Your task to perform on an android device: install app "The Home Depot" Image 0: 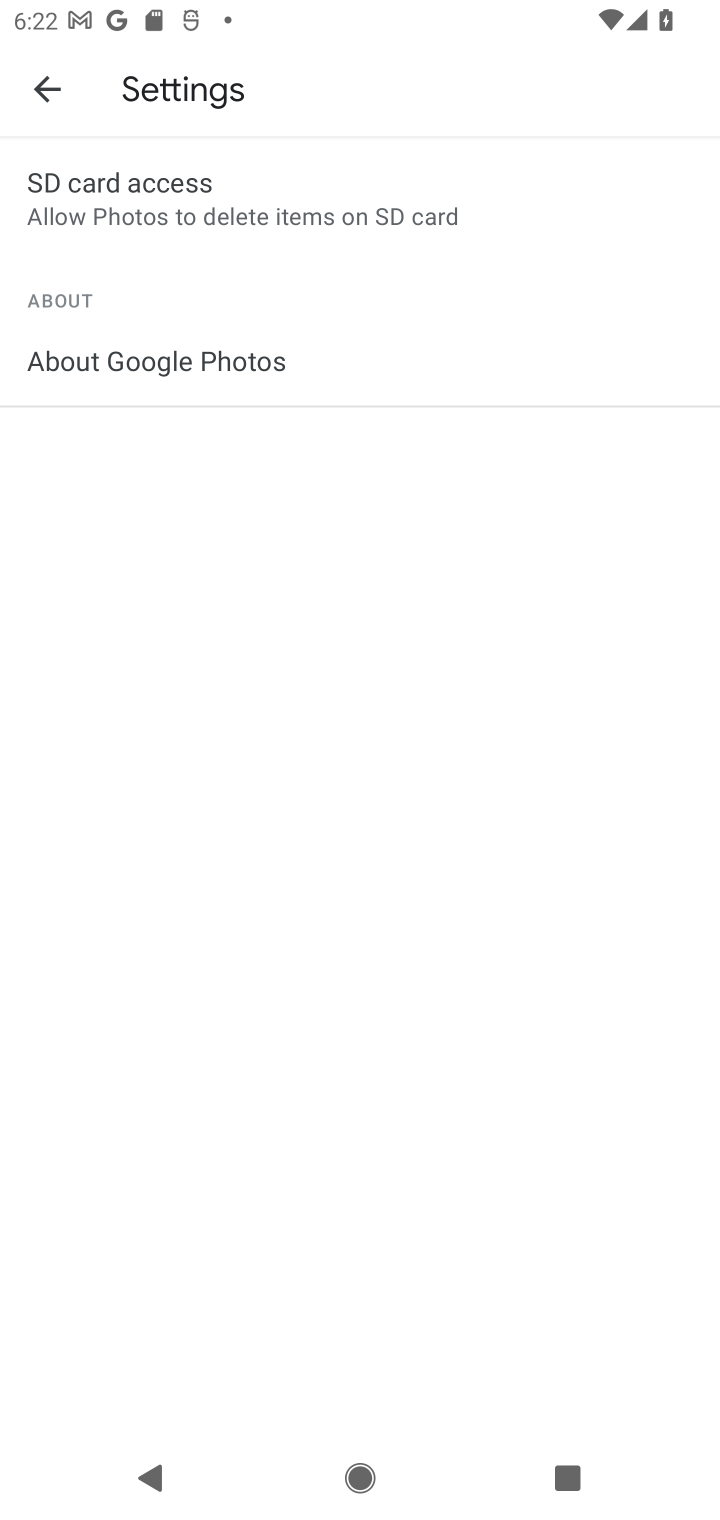
Step 0: press home button
Your task to perform on an android device: install app "The Home Depot" Image 1: 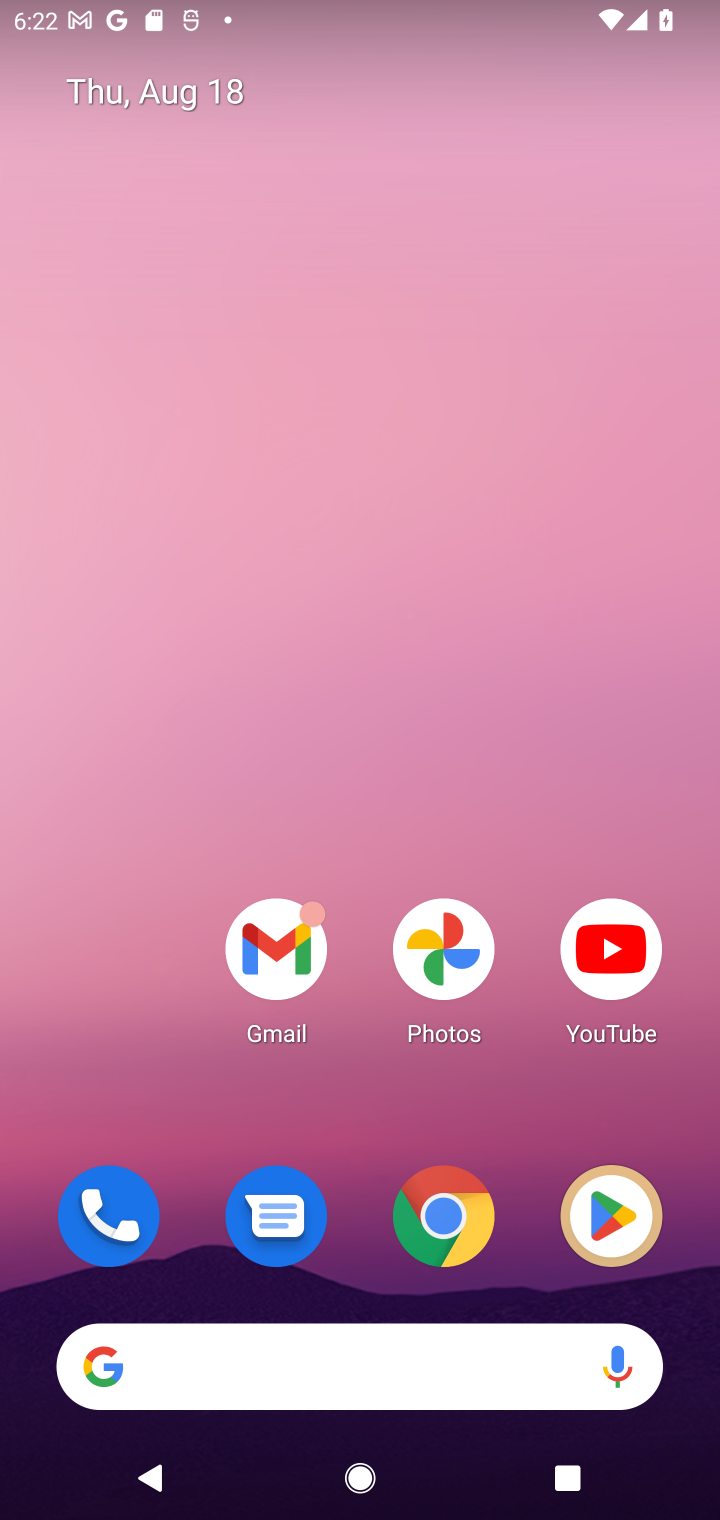
Step 1: click (605, 1215)
Your task to perform on an android device: install app "The Home Depot" Image 2: 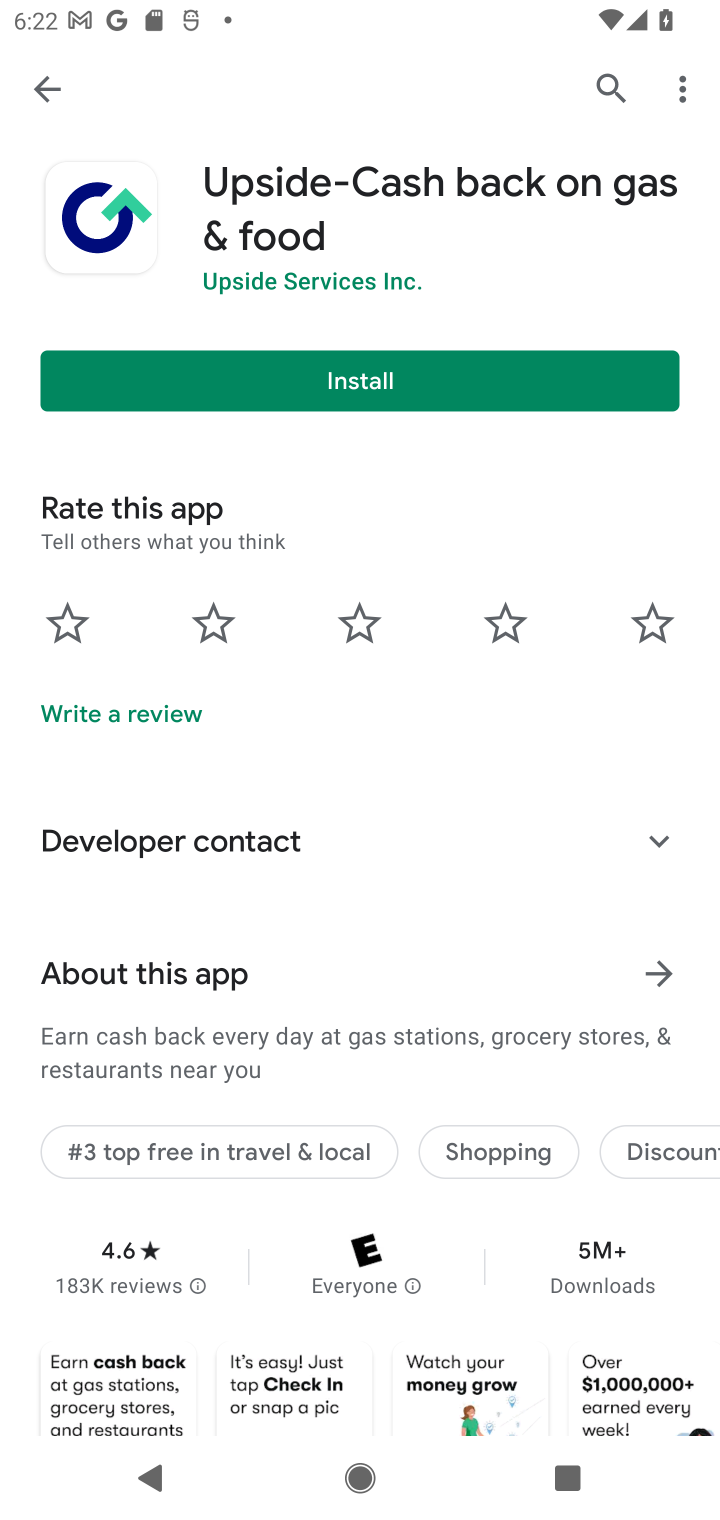
Step 2: click (594, 84)
Your task to perform on an android device: install app "The Home Depot" Image 3: 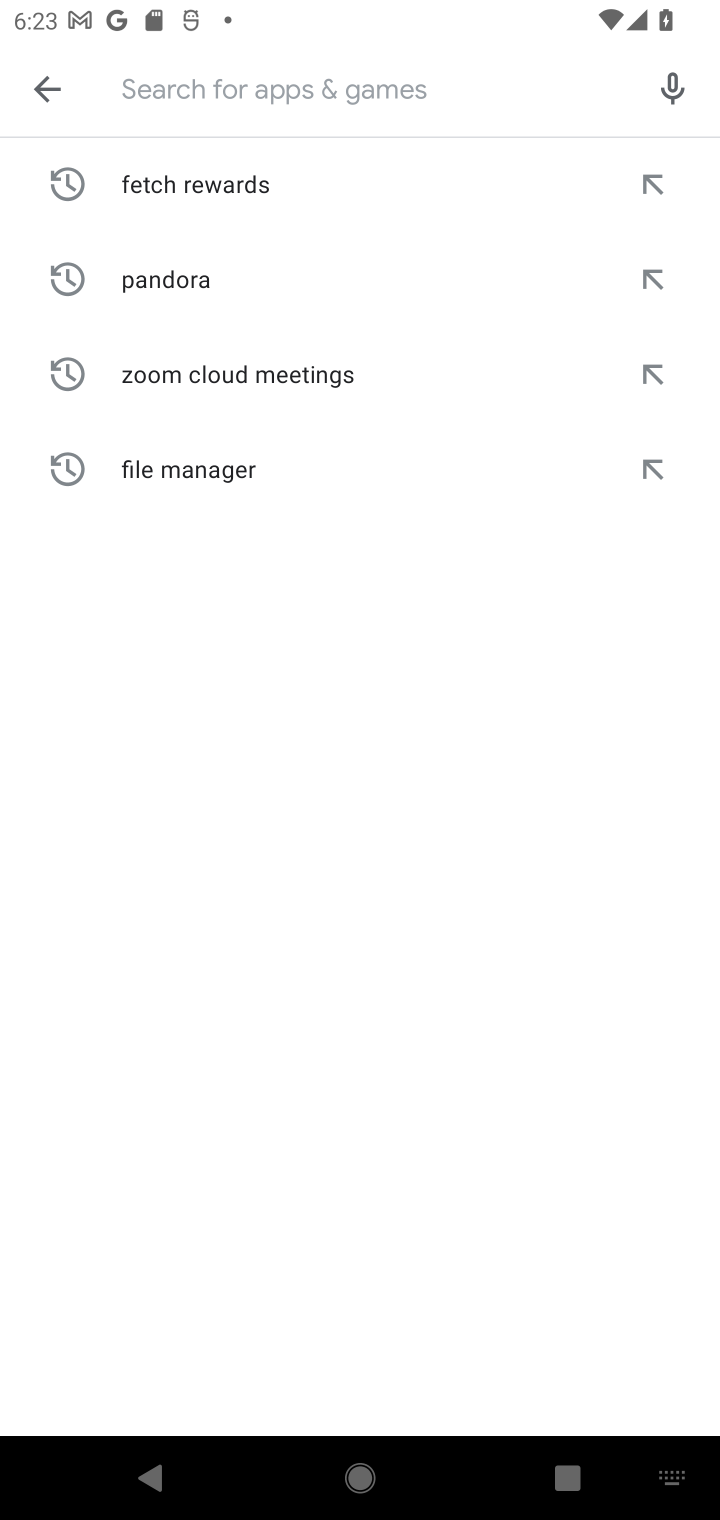
Step 3: type "The Home Depot"
Your task to perform on an android device: install app "The Home Depot" Image 4: 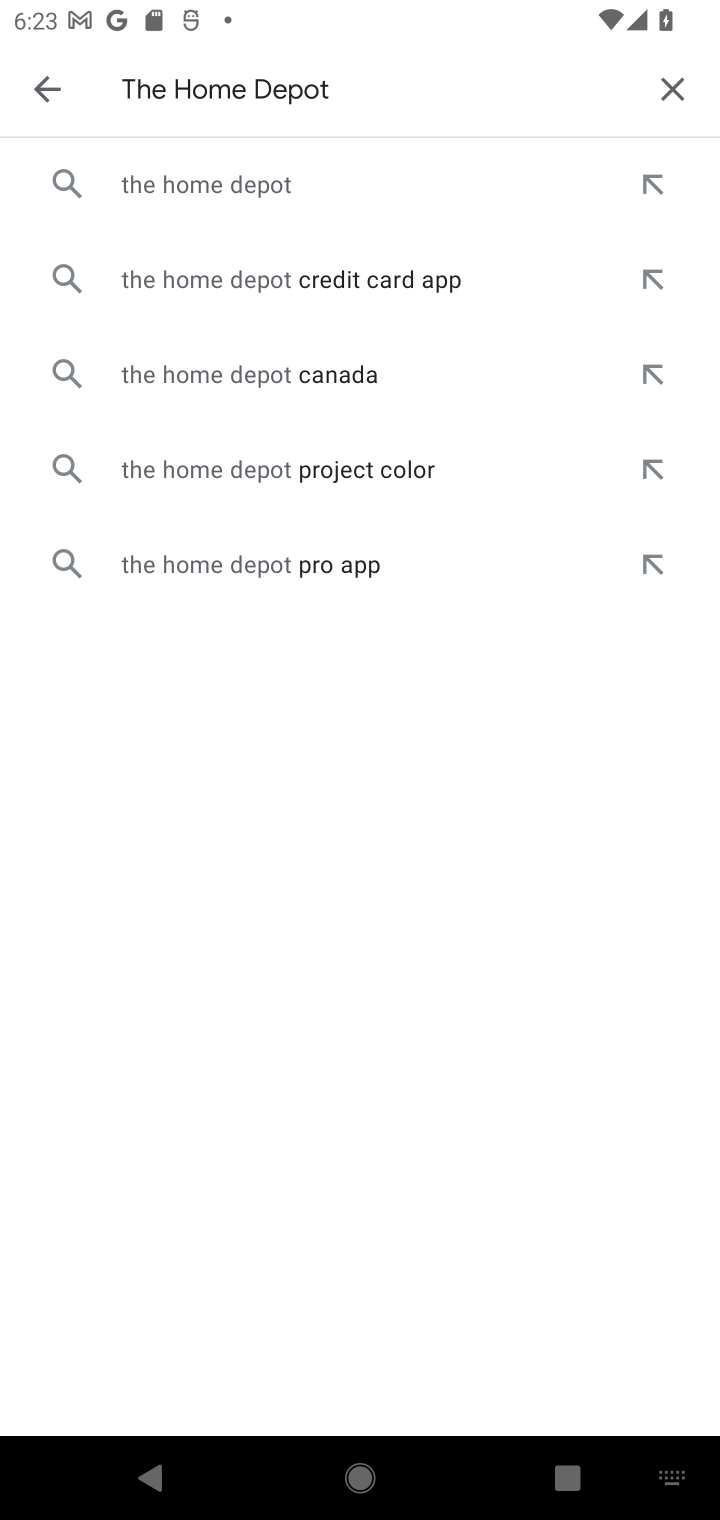
Step 4: click (216, 192)
Your task to perform on an android device: install app "The Home Depot" Image 5: 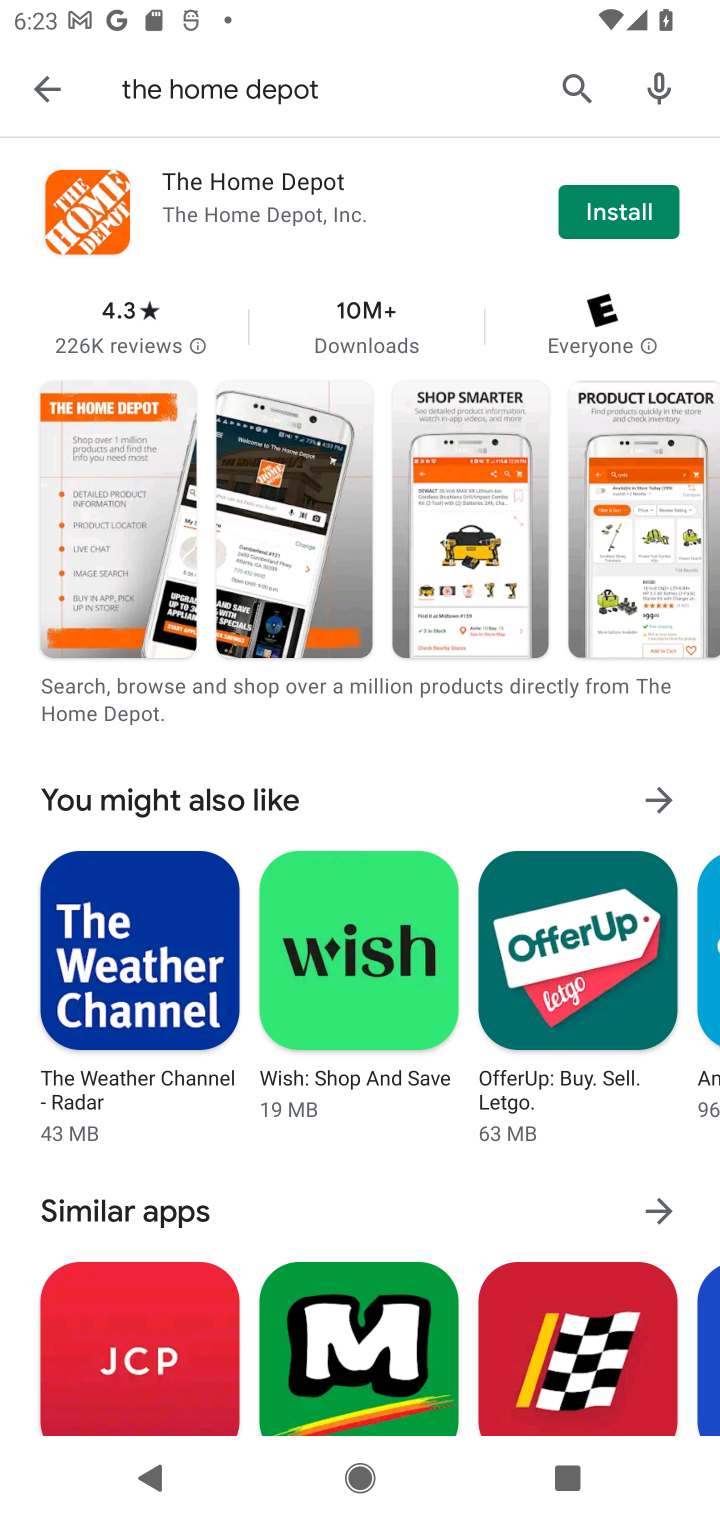
Step 5: click (619, 215)
Your task to perform on an android device: install app "The Home Depot" Image 6: 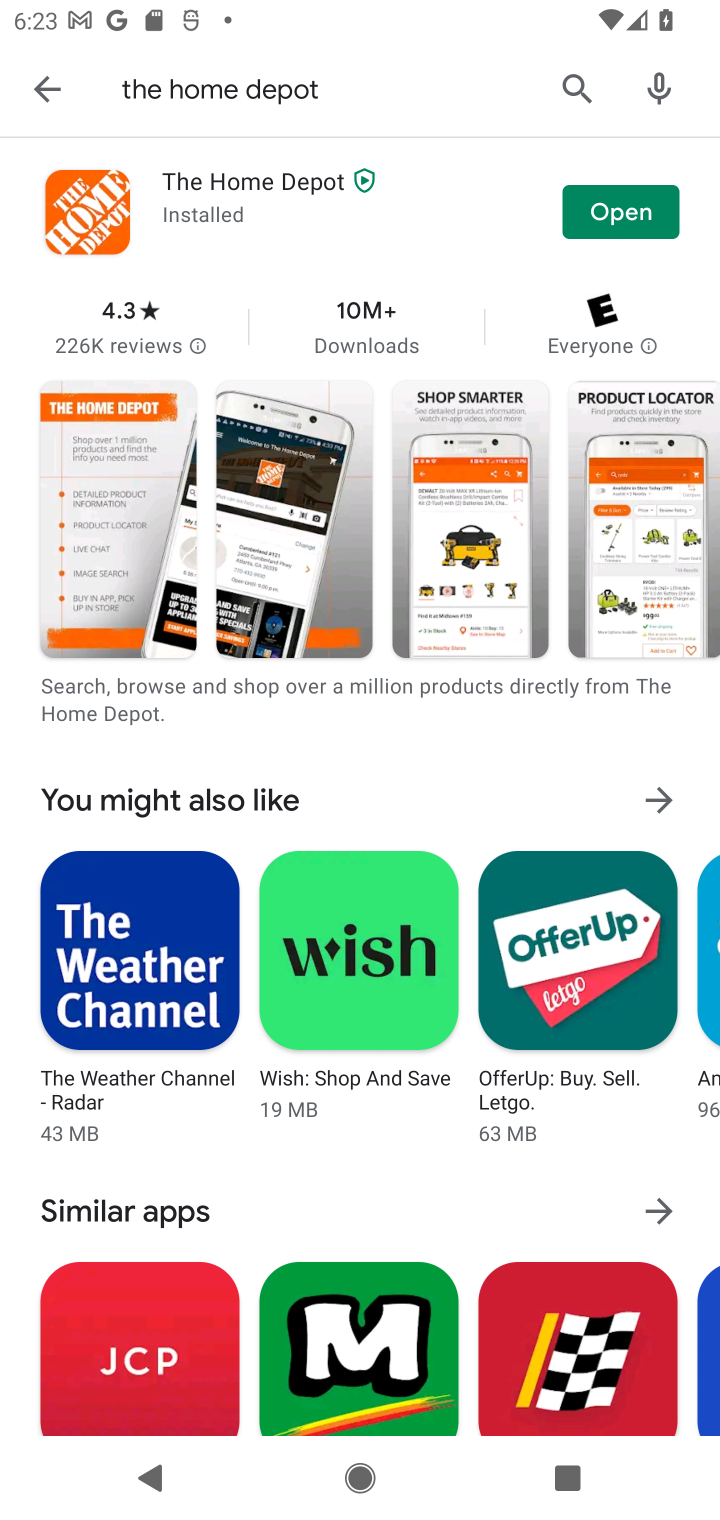
Step 6: click (618, 215)
Your task to perform on an android device: install app "The Home Depot" Image 7: 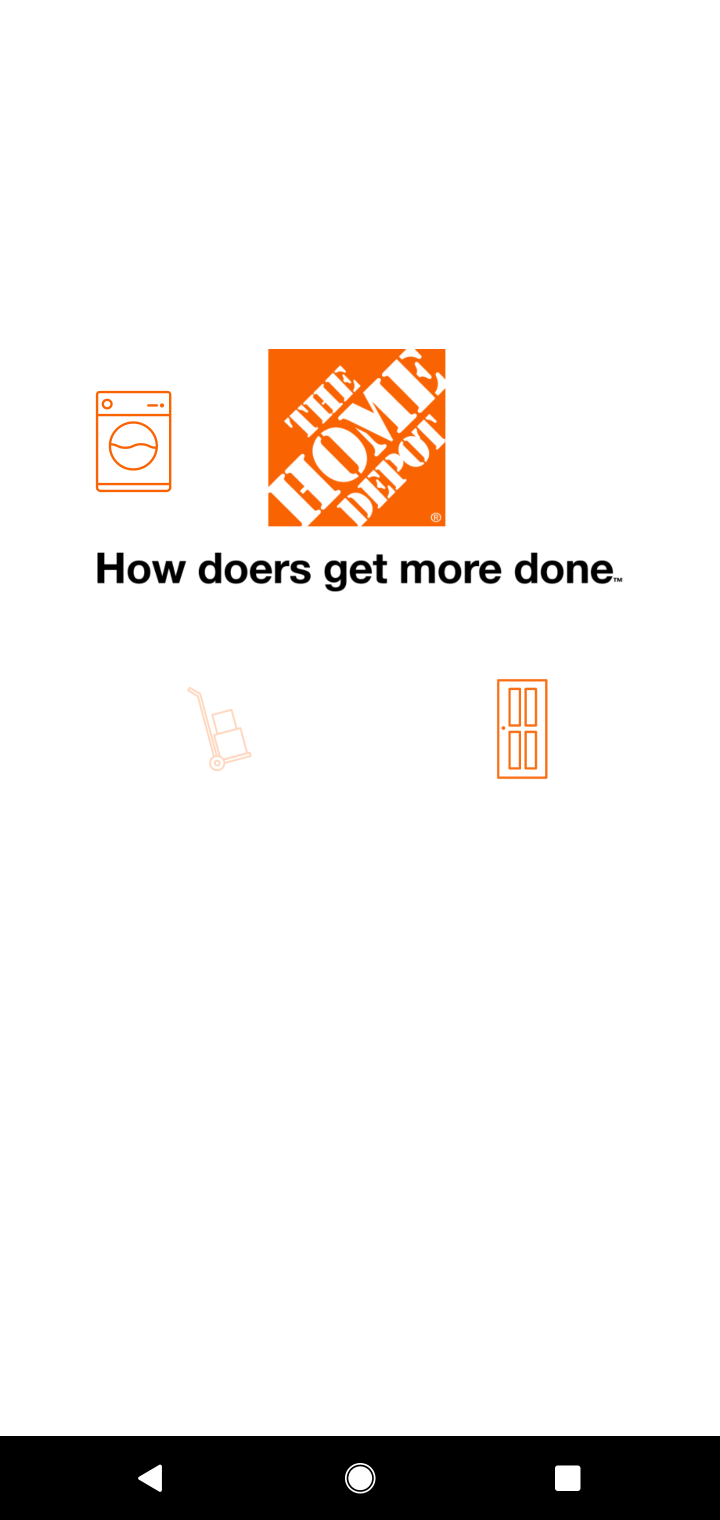
Step 7: task complete